Your task to perform on an android device: toggle show notifications on the lock screen Image 0: 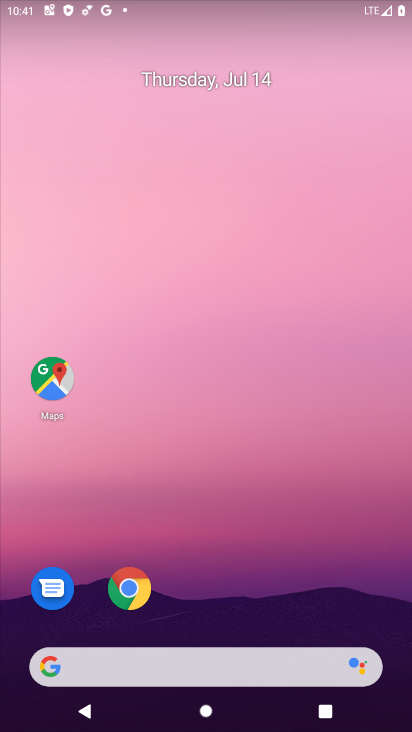
Step 0: press home button
Your task to perform on an android device: toggle show notifications on the lock screen Image 1: 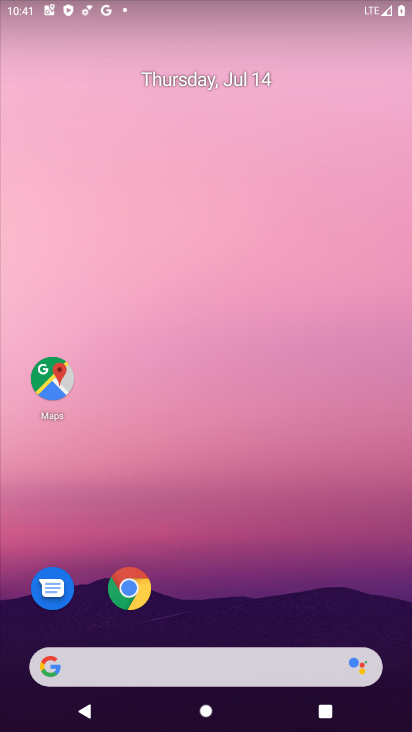
Step 1: drag from (107, 670) to (274, 108)
Your task to perform on an android device: toggle show notifications on the lock screen Image 2: 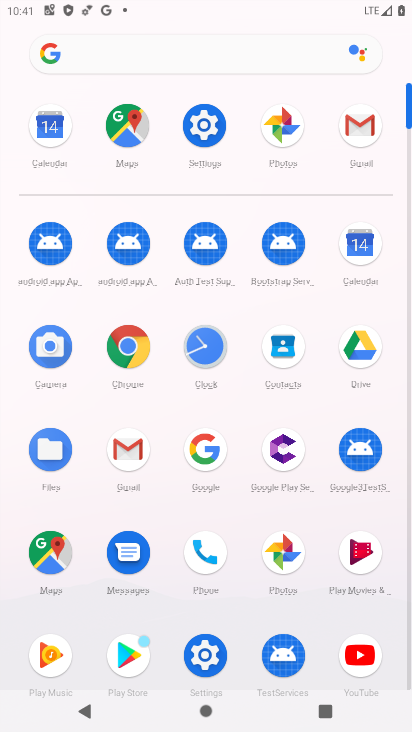
Step 2: click (208, 139)
Your task to perform on an android device: toggle show notifications on the lock screen Image 3: 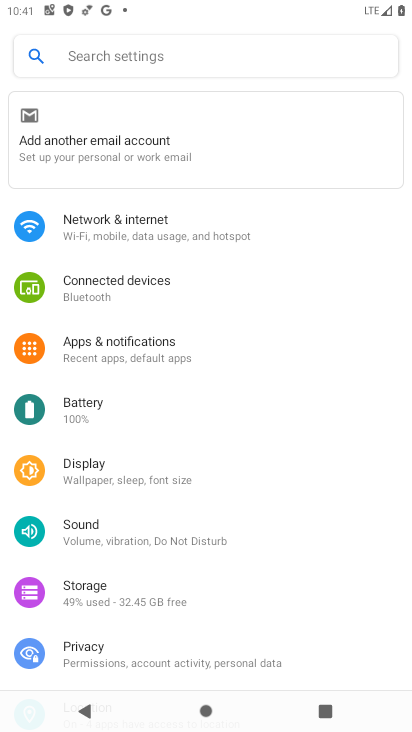
Step 3: click (118, 351)
Your task to perform on an android device: toggle show notifications on the lock screen Image 4: 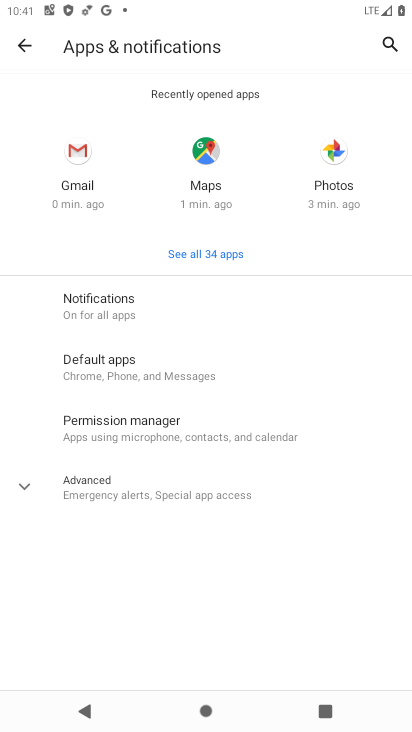
Step 4: click (129, 321)
Your task to perform on an android device: toggle show notifications on the lock screen Image 5: 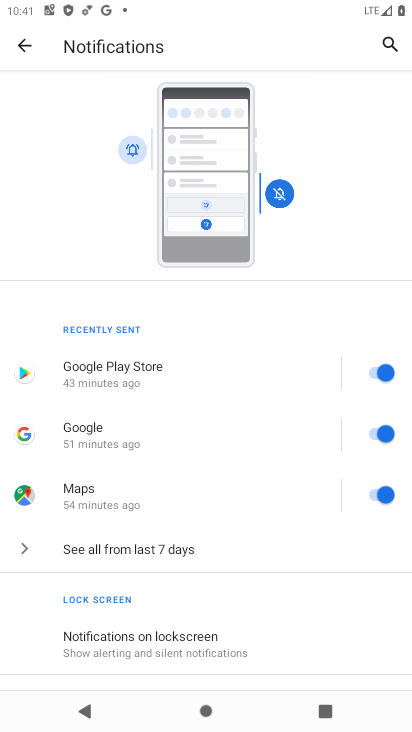
Step 5: click (157, 626)
Your task to perform on an android device: toggle show notifications on the lock screen Image 6: 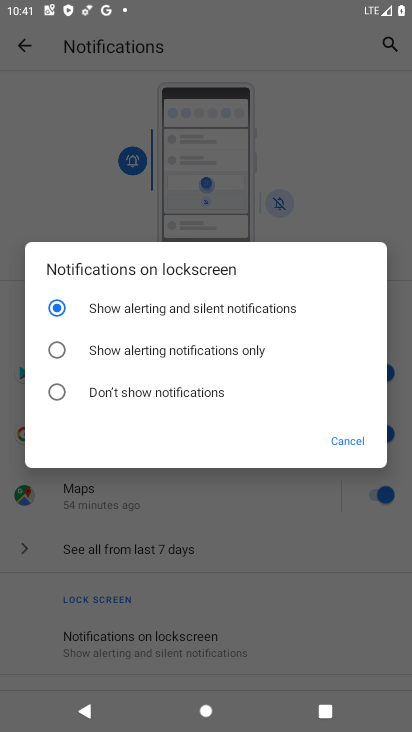
Step 6: click (65, 390)
Your task to perform on an android device: toggle show notifications on the lock screen Image 7: 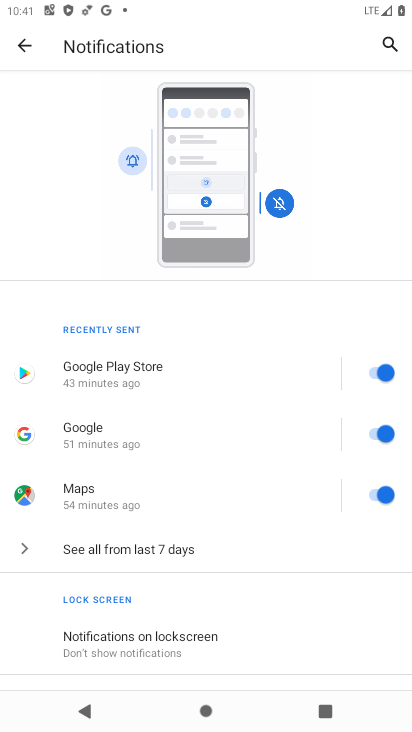
Step 7: task complete